Your task to perform on an android device: Go to ESPN.com Image 0: 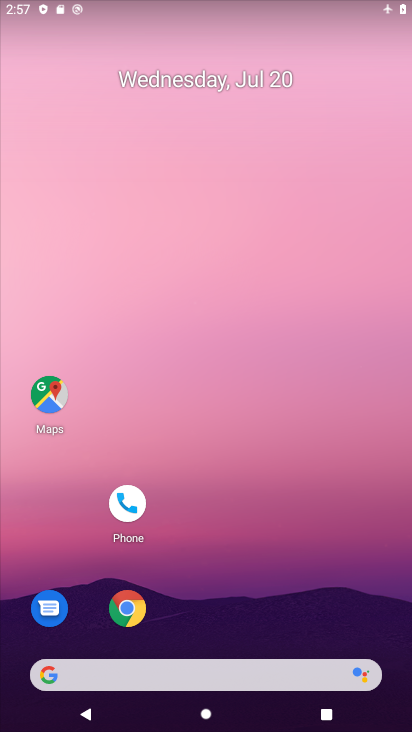
Step 0: drag from (292, 455) to (332, 39)
Your task to perform on an android device: Go to ESPN.com Image 1: 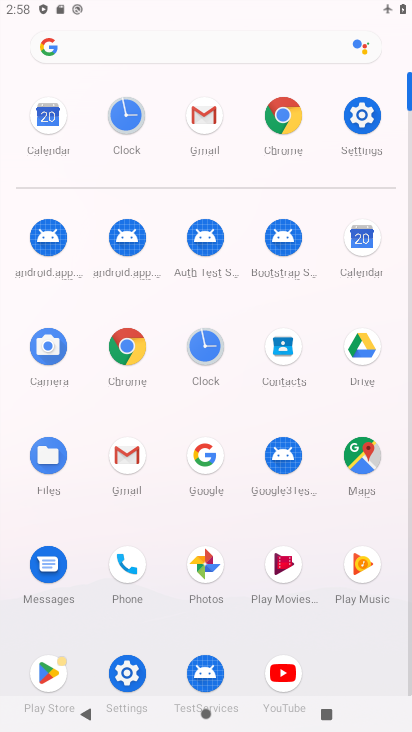
Step 1: click (282, 120)
Your task to perform on an android device: Go to ESPN.com Image 2: 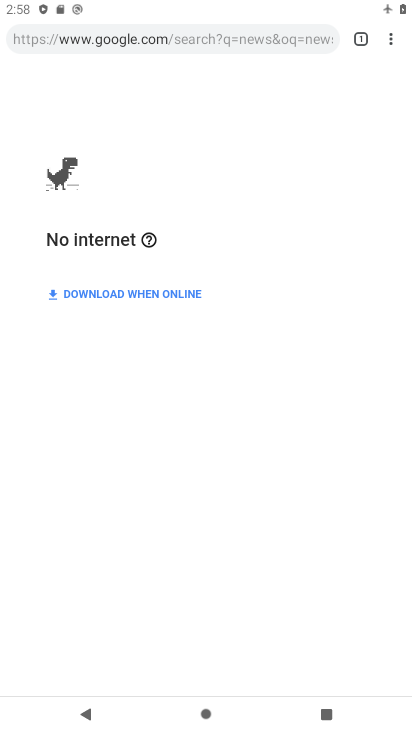
Step 2: click (200, 23)
Your task to perform on an android device: Go to ESPN.com Image 3: 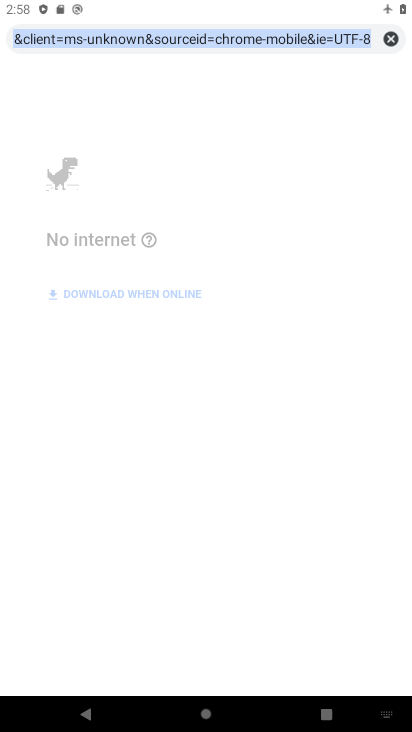
Step 3: click (389, 35)
Your task to perform on an android device: Go to ESPN.com Image 4: 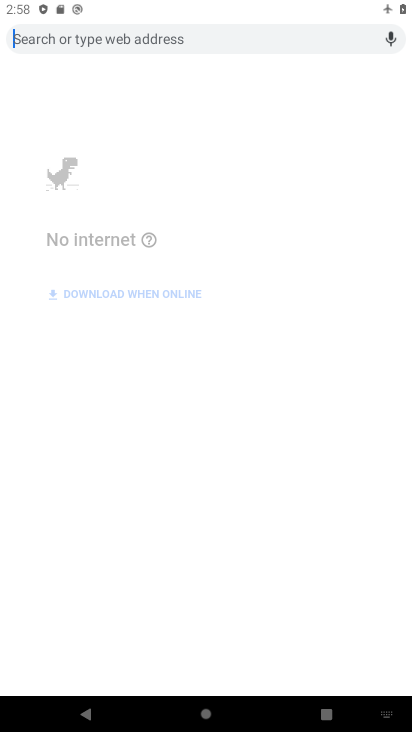
Step 4: type "espn.com"
Your task to perform on an android device: Go to ESPN.com Image 5: 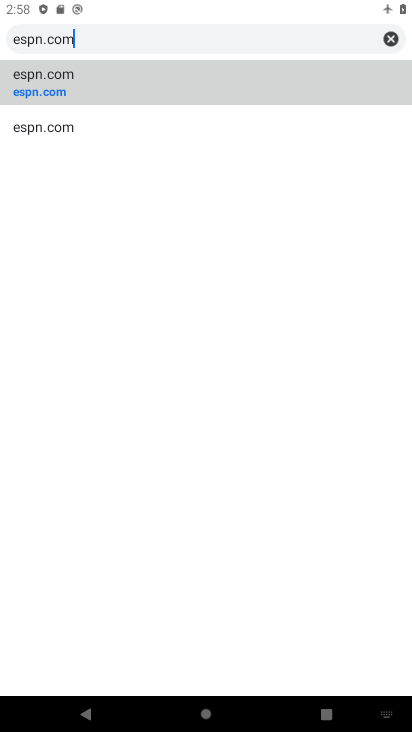
Step 5: click (60, 95)
Your task to perform on an android device: Go to ESPN.com Image 6: 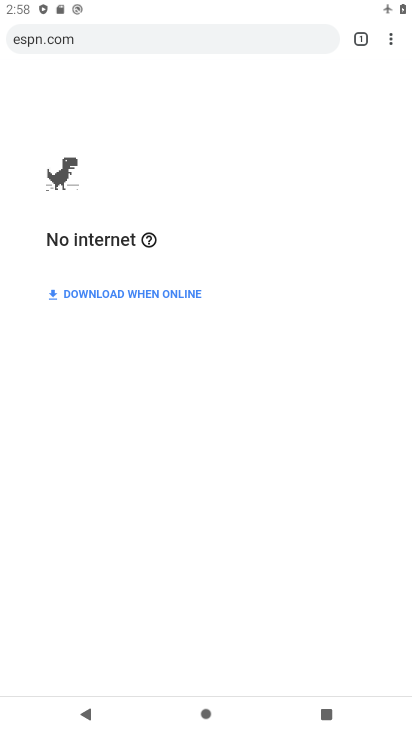
Step 6: task complete